Your task to perform on an android device: Search for Mexican restaurants on Maps Image 0: 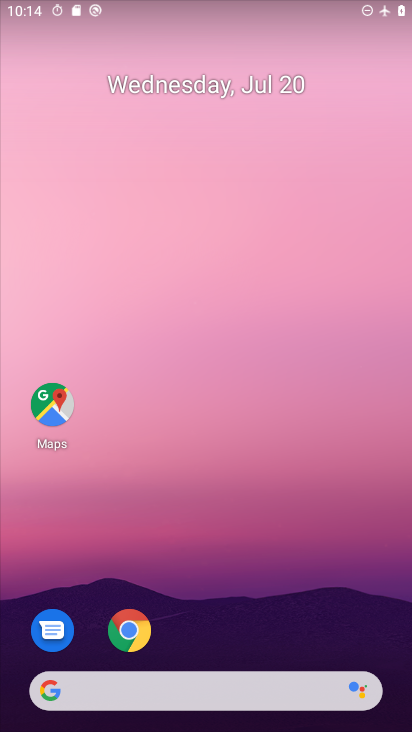
Step 0: drag from (249, 609) to (267, 61)
Your task to perform on an android device: Search for Mexican restaurants on Maps Image 1: 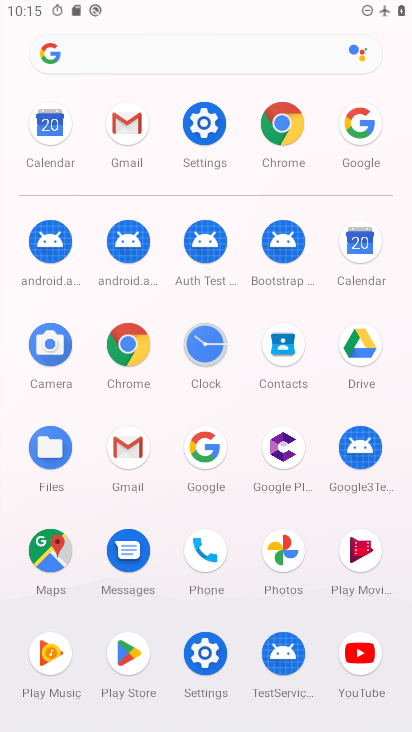
Step 1: click (46, 541)
Your task to perform on an android device: Search for Mexican restaurants on Maps Image 2: 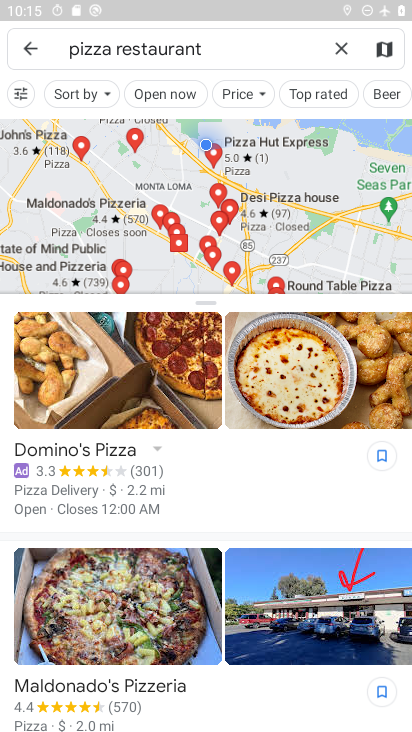
Step 2: click (335, 57)
Your task to perform on an android device: Search for Mexican restaurants on Maps Image 3: 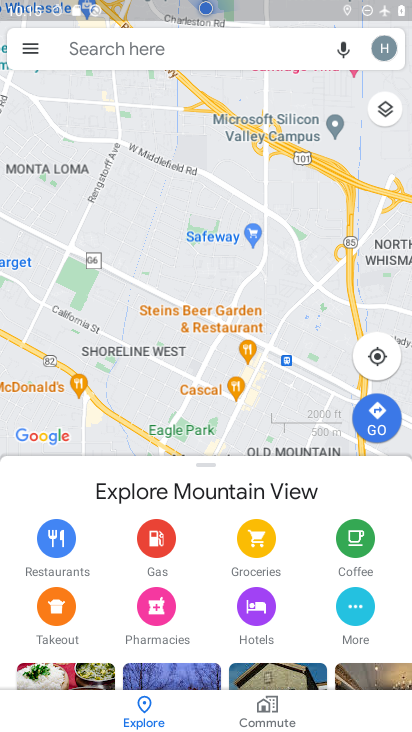
Step 3: click (140, 48)
Your task to perform on an android device: Search for Mexican restaurants on Maps Image 4: 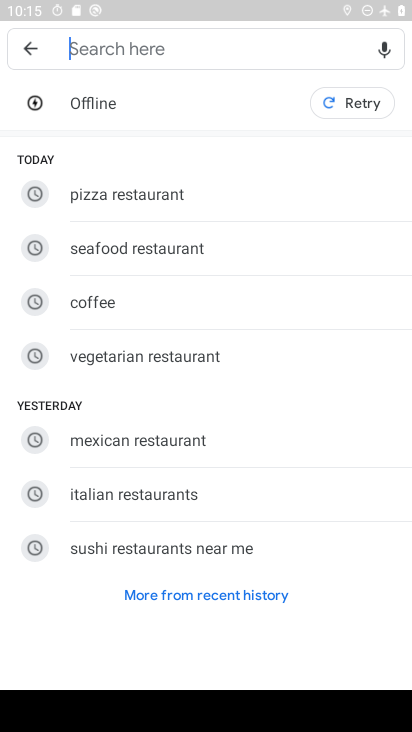
Step 4: click (140, 444)
Your task to perform on an android device: Search for Mexican restaurants on Maps Image 5: 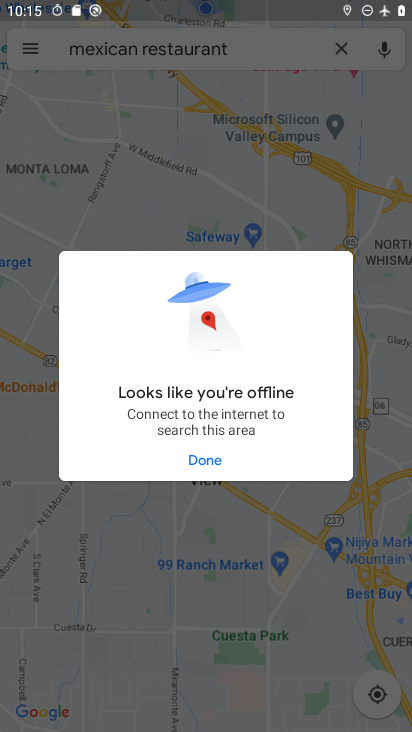
Step 5: click (208, 459)
Your task to perform on an android device: Search for Mexican restaurants on Maps Image 6: 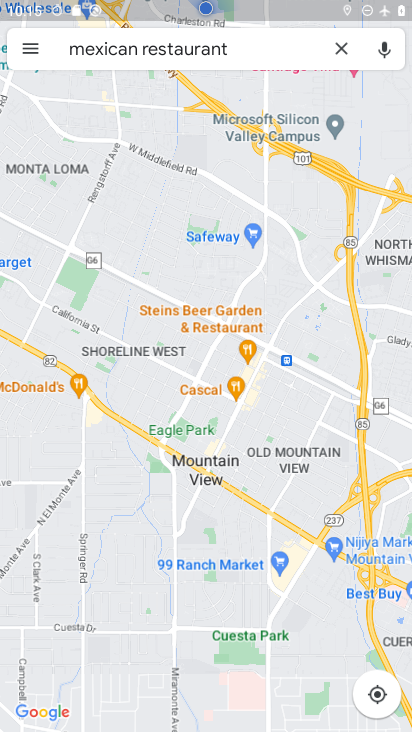
Step 6: task complete